Your task to perform on an android device: Open settings on Google Maps Image 0: 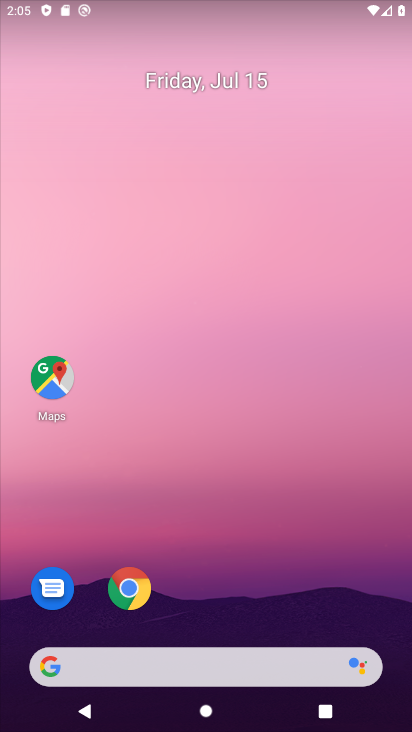
Step 0: click (52, 389)
Your task to perform on an android device: Open settings on Google Maps Image 1: 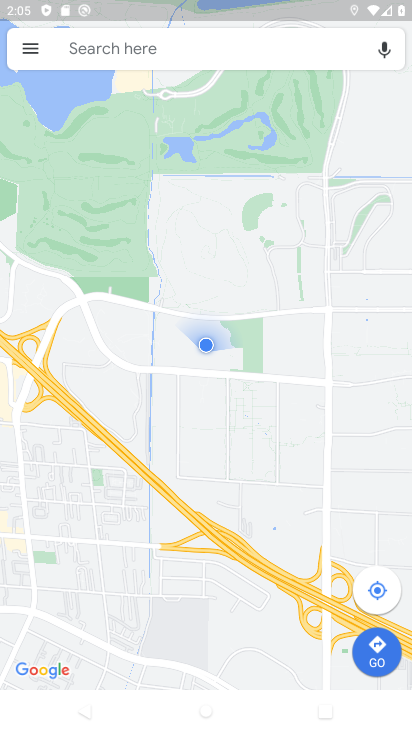
Step 1: click (20, 43)
Your task to perform on an android device: Open settings on Google Maps Image 2: 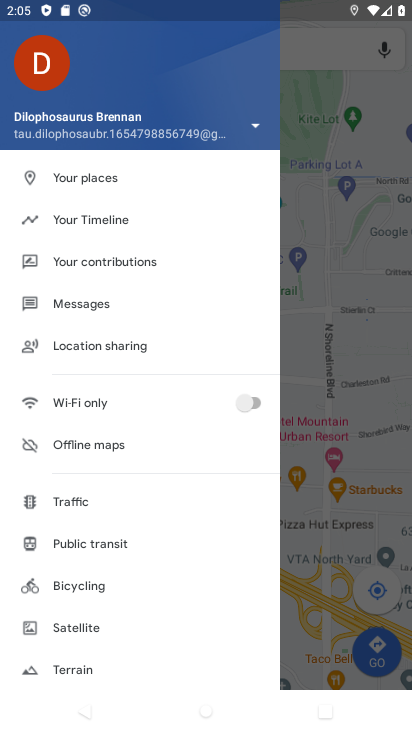
Step 2: drag from (139, 544) to (95, 230)
Your task to perform on an android device: Open settings on Google Maps Image 3: 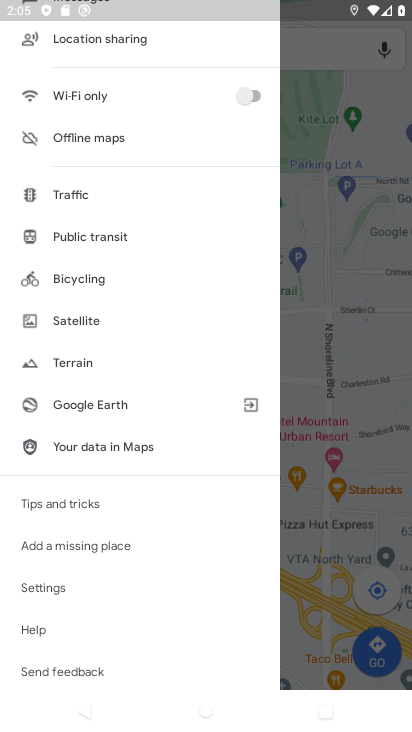
Step 3: click (71, 588)
Your task to perform on an android device: Open settings on Google Maps Image 4: 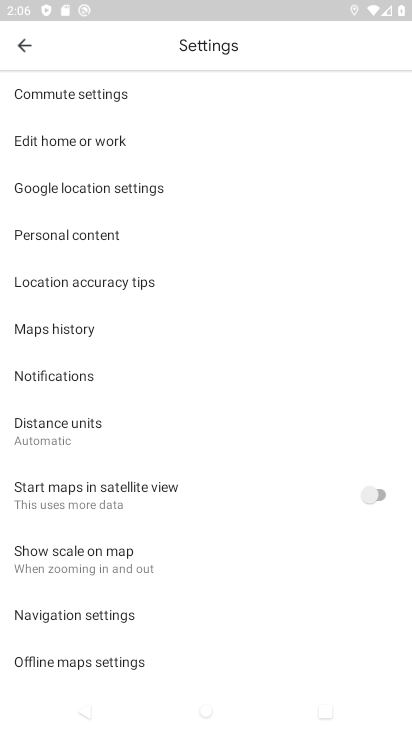
Step 4: task complete